Your task to perform on an android device: see sites visited before in the chrome app Image 0: 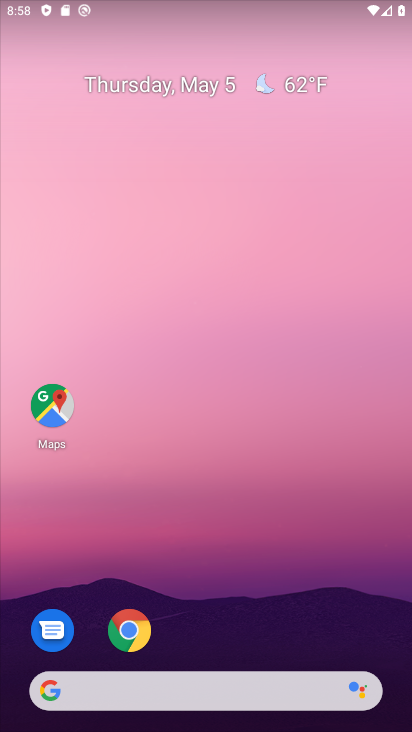
Step 0: drag from (228, 654) to (260, 0)
Your task to perform on an android device: see sites visited before in the chrome app Image 1: 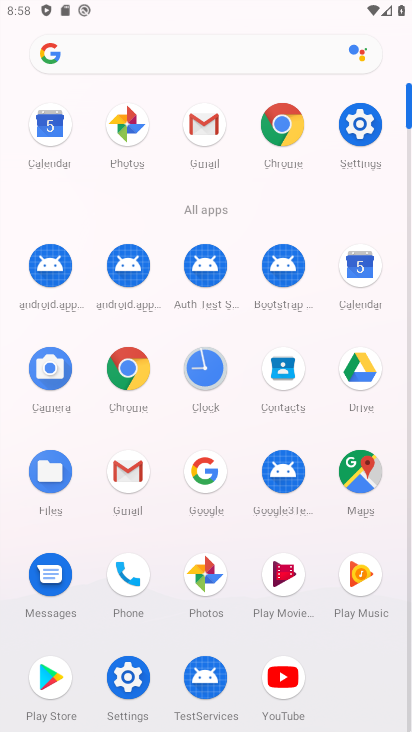
Step 1: click (132, 366)
Your task to perform on an android device: see sites visited before in the chrome app Image 2: 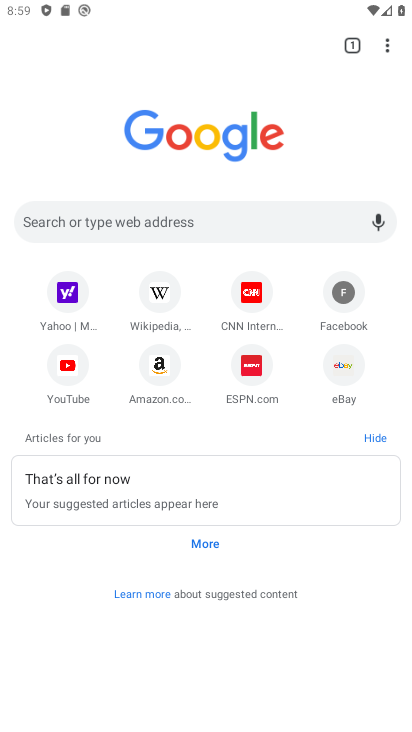
Step 2: click (386, 39)
Your task to perform on an android device: see sites visited before in the chrome app Image 3: 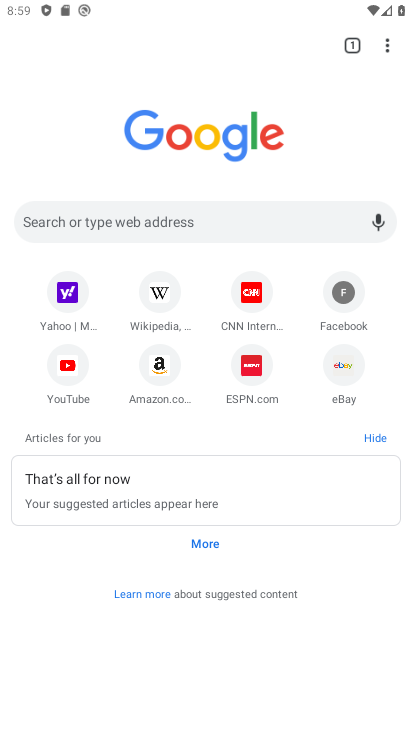
Step 3: click (385, 39)
Your task to perform on an android device: see sites visited before in the chrome app Image 4: 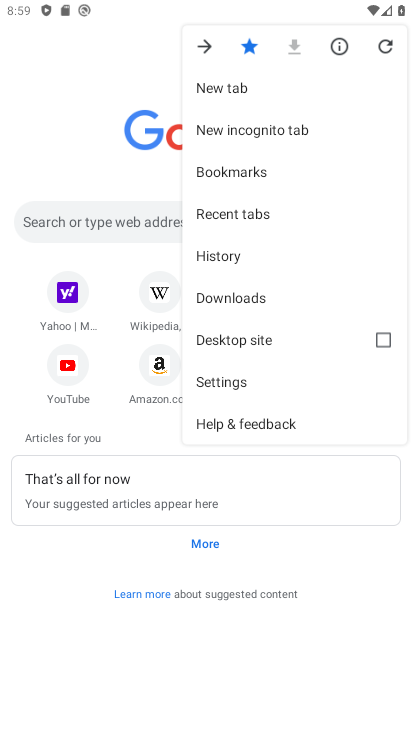
Step 4: click (257, 254)
Your task to perform on an android device: see sites visited before in the chrome app Image 5: 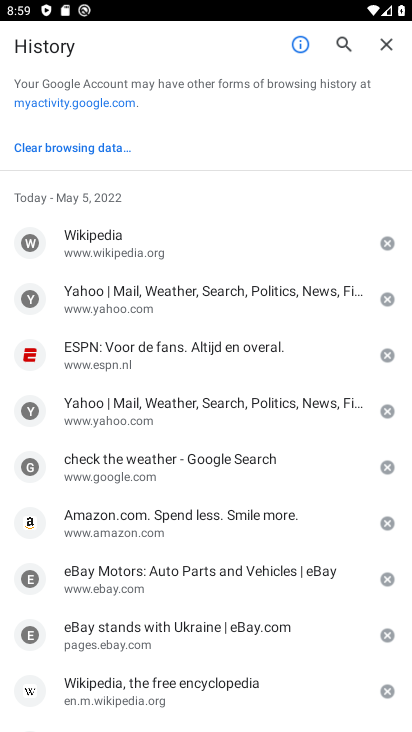
Step 5: task complete